Your task to perform on an android device: turn off wifi Image 0: 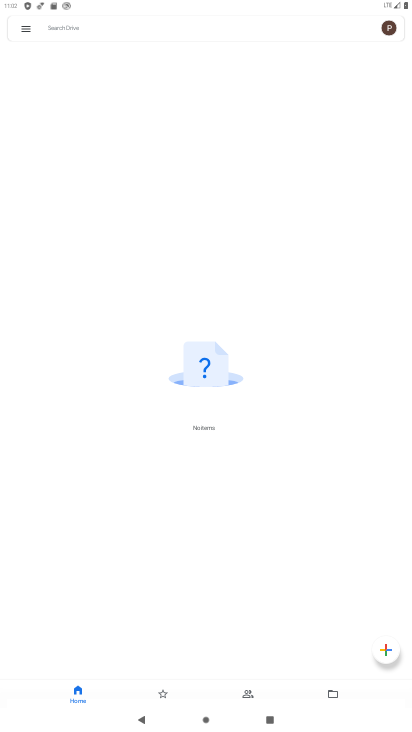
Step 0: press home button
Your task to perform on an android device: turn off wifi Image 1: 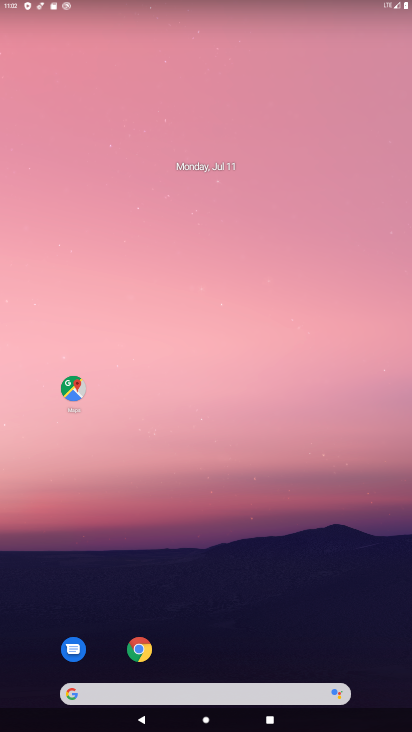
Step 1: drag from (271, 620) to (203, 141)
Your task to perform on an android device: turn off wifi Image 2: 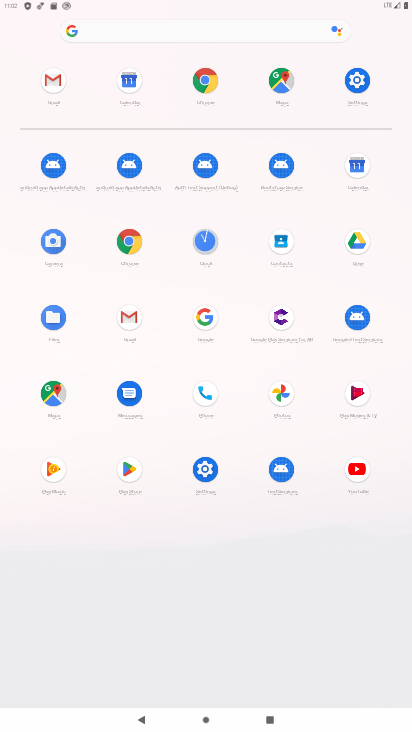
Step 2: click (359, 75)
Your task to perform on an android device: turn off wifi Image 3: 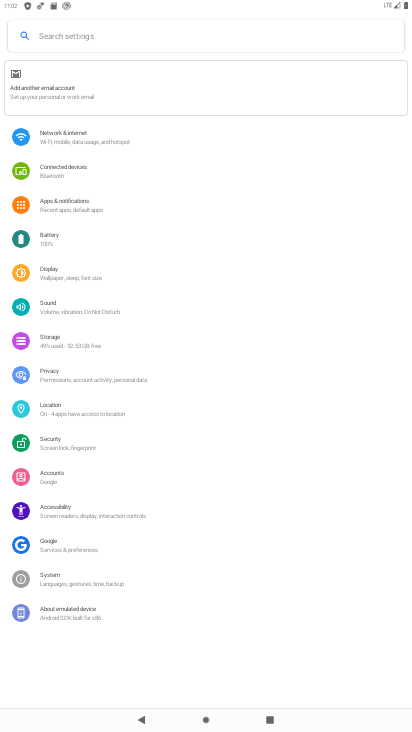
Step 3: click (103, 144)
Your task to perform on an android device: turn off wifi Image 4: 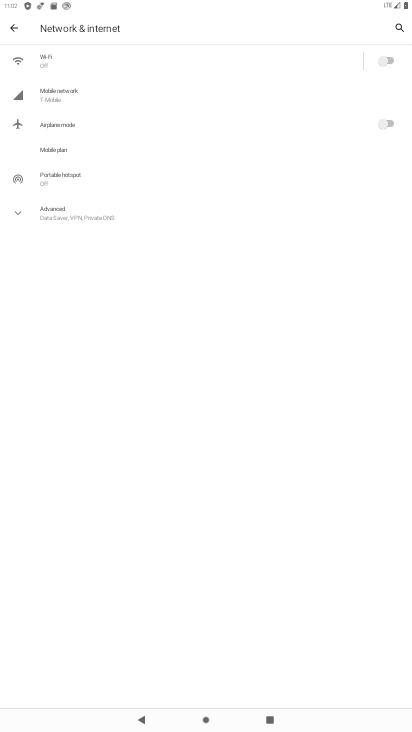
Step 4: task complete